Your task to perform on an android device: Toggle the flashlight Image 0: 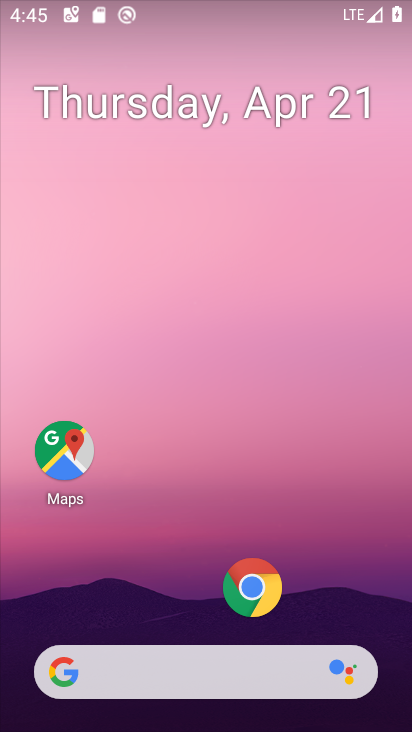
Step 0: drag from (206, 1) to (156, 480)
Your task to perform on an android device: Toggle the flashlight Image 1: 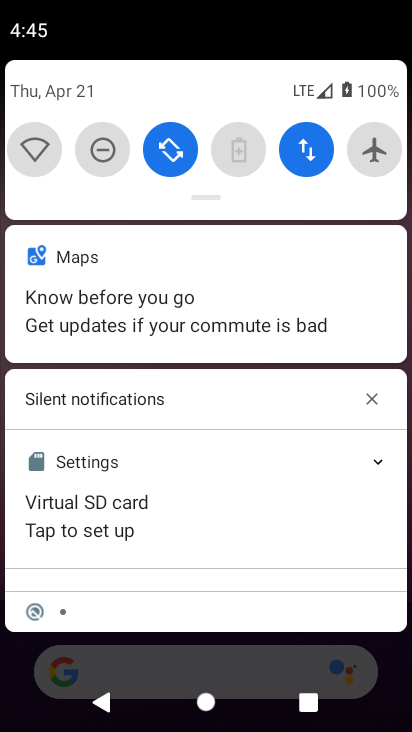
Step 1: task complete